Your task to perform on an android device: open a new tab in the chrome app Image 0: 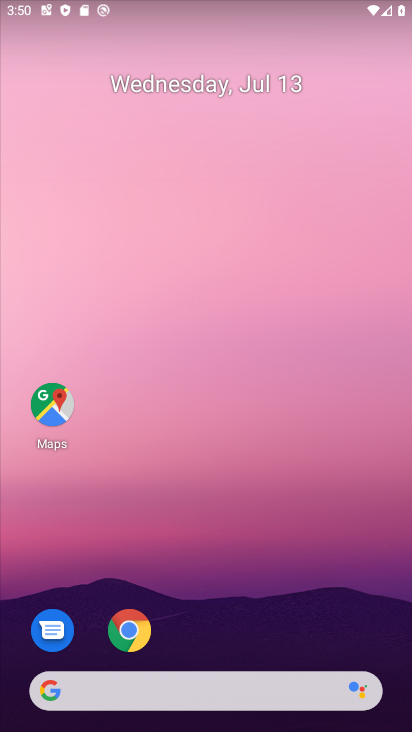
Step 0: click (116, 637)
Your task to perform on an android device: open a new tab in the chrome app Image 1: 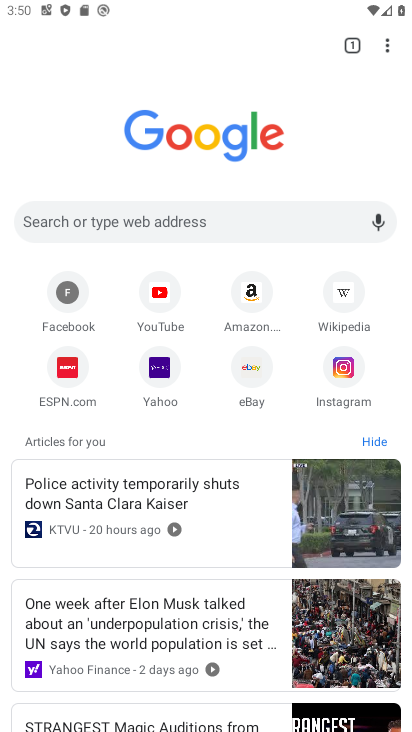
Step 1: click (385, 44)
Your task to perform on an android device: open a new tab in the chrome app Image 2: 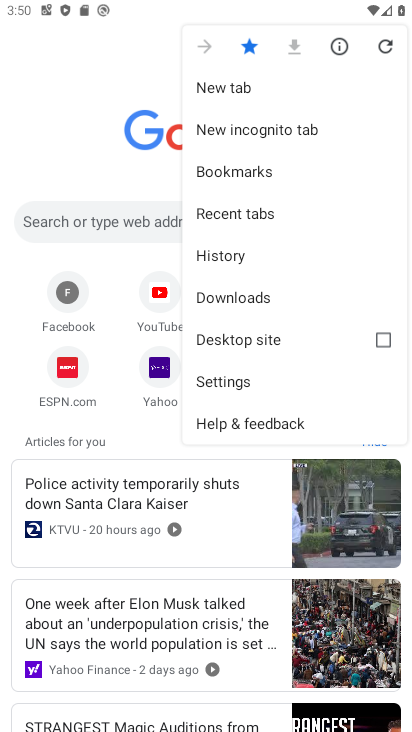
Step 2: click (263, 87)
Your task to perform on an android device: open a new tab in the chrome app Image 3: 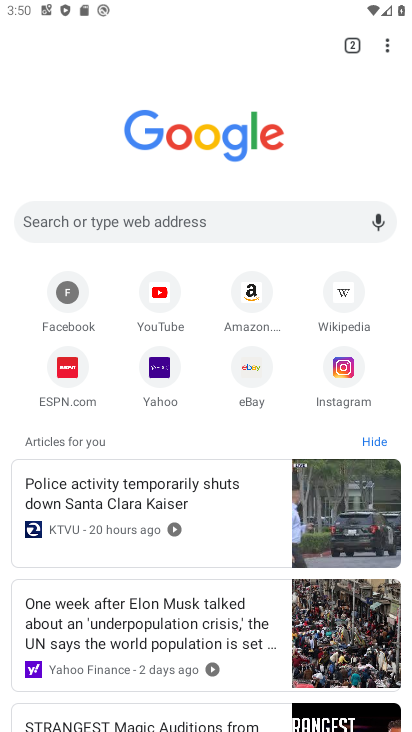
Step 3: task complete